Your task to perform on an android device: open wifi settings Image 0: 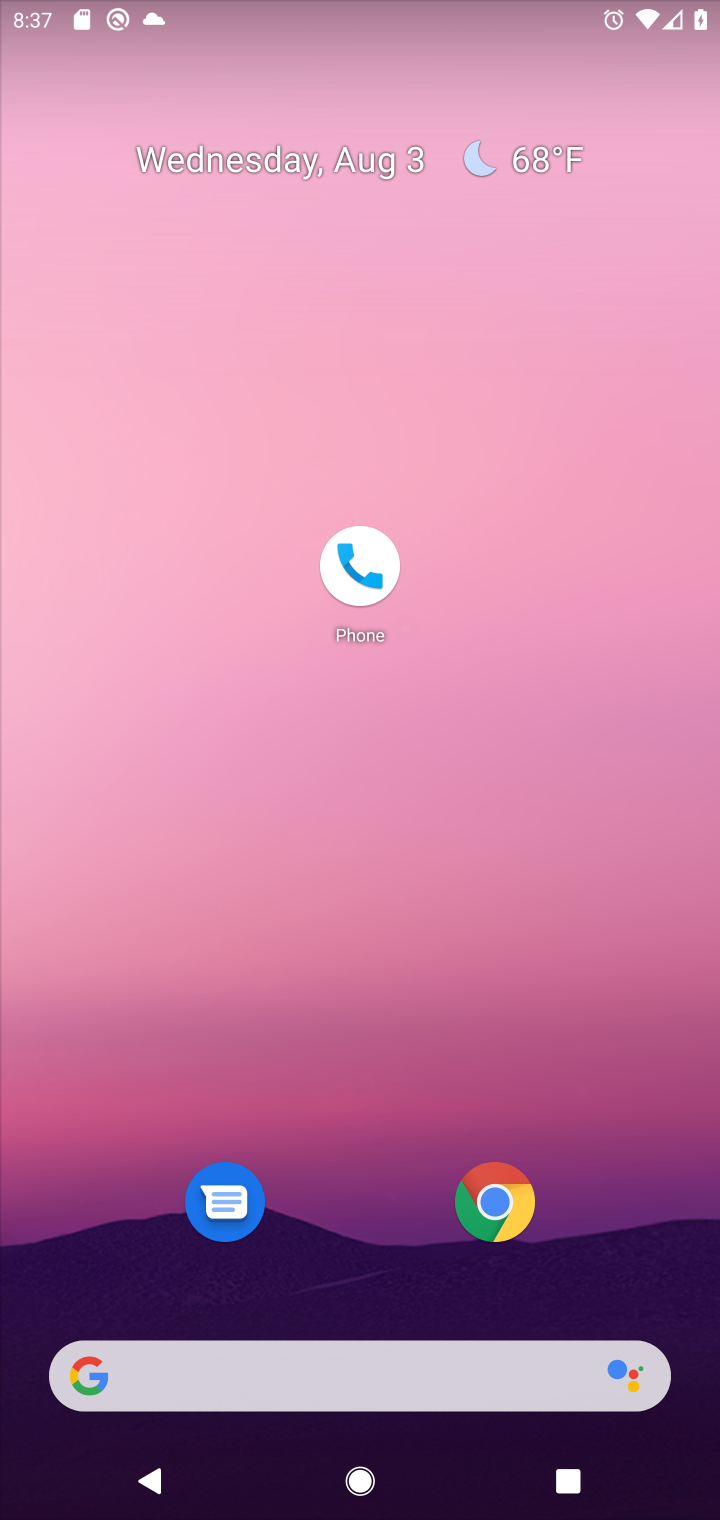
Step 0: drag from (300, 1380) to (714, 186)
Your task to perform on an android device: open wifi settings Image 1: 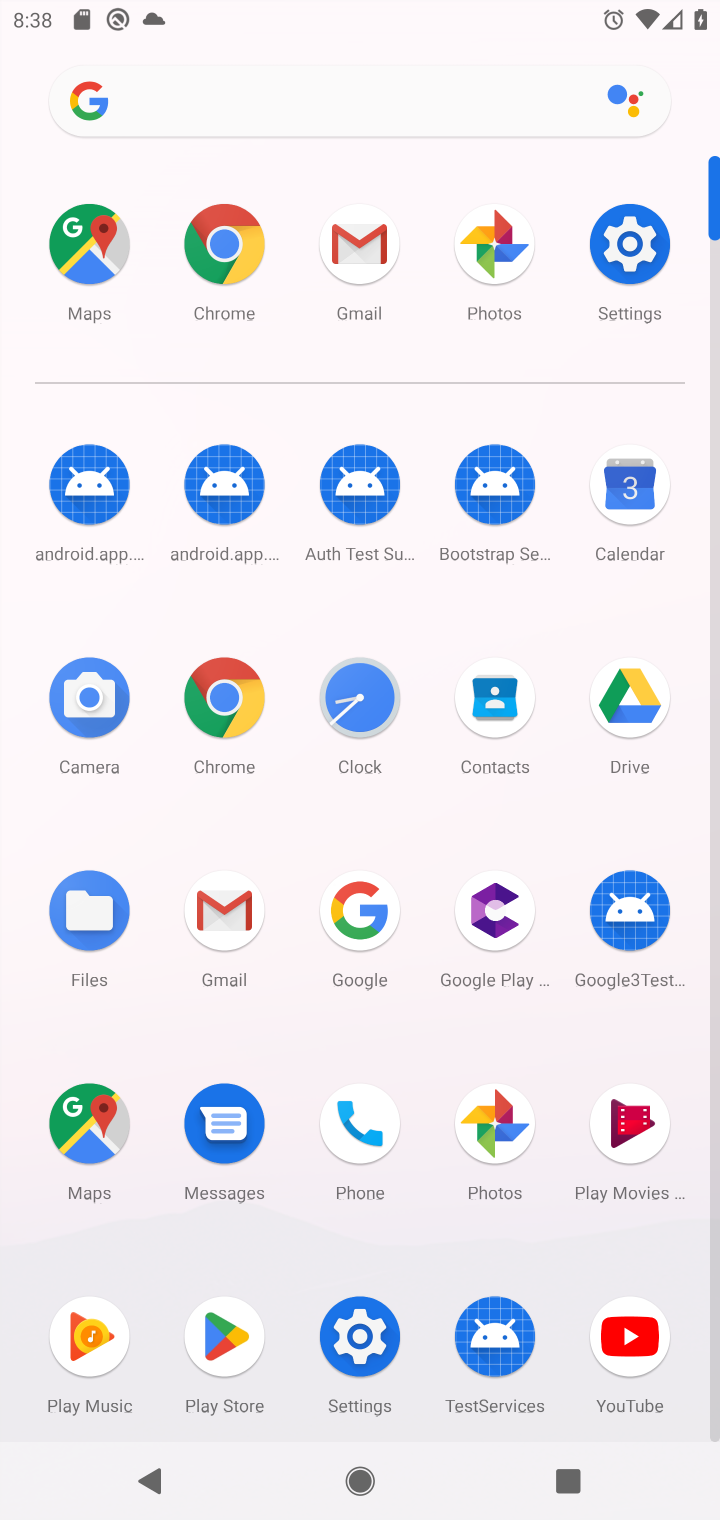
Step 1: click (630, 246)
Your task to perform on an android device: open wifi settings Image 2: 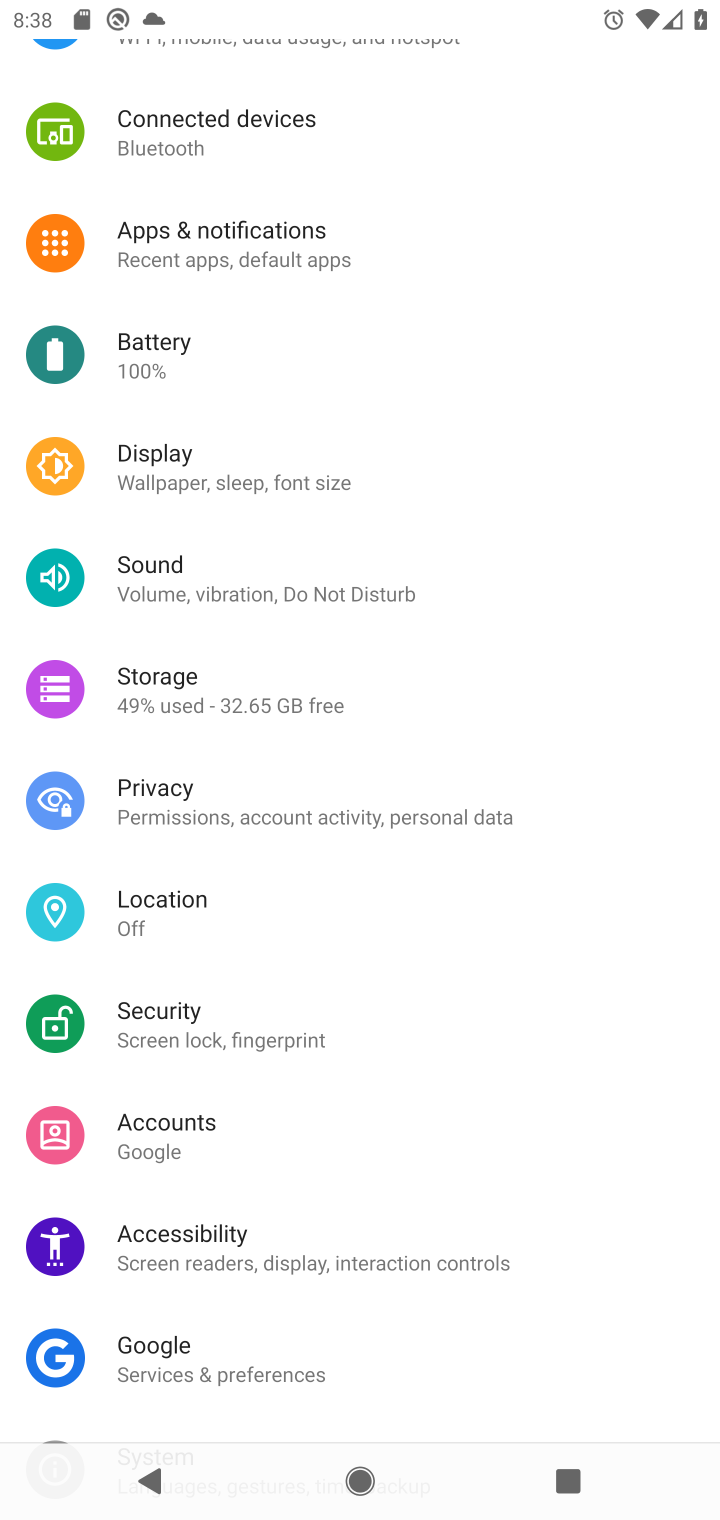
Step 2: drag from (365, 339) to (387, 1026)
Your task to perform on an android device: open wifi settings Image 3: 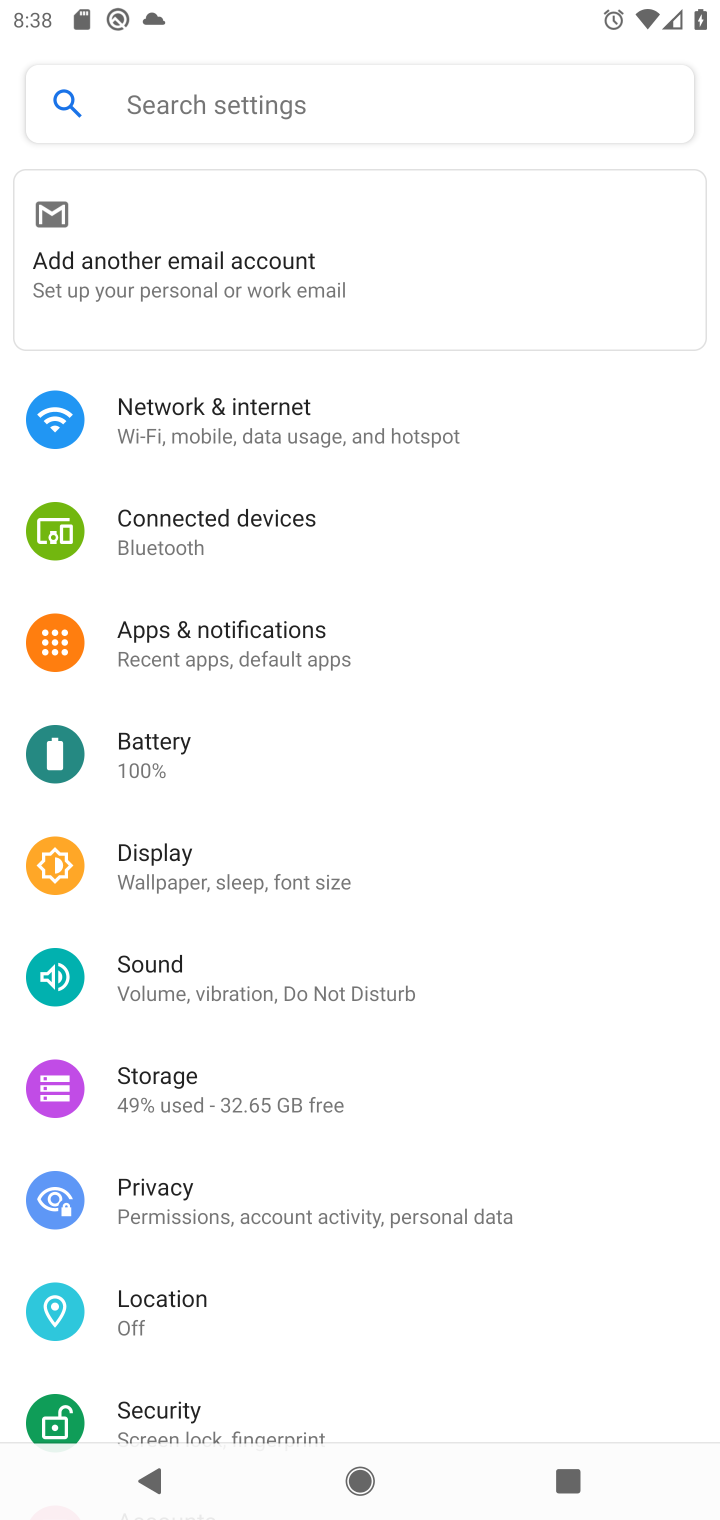
Step 3: click (246, 441)
Your task to perform on an android device: open wifi settings Image 4: 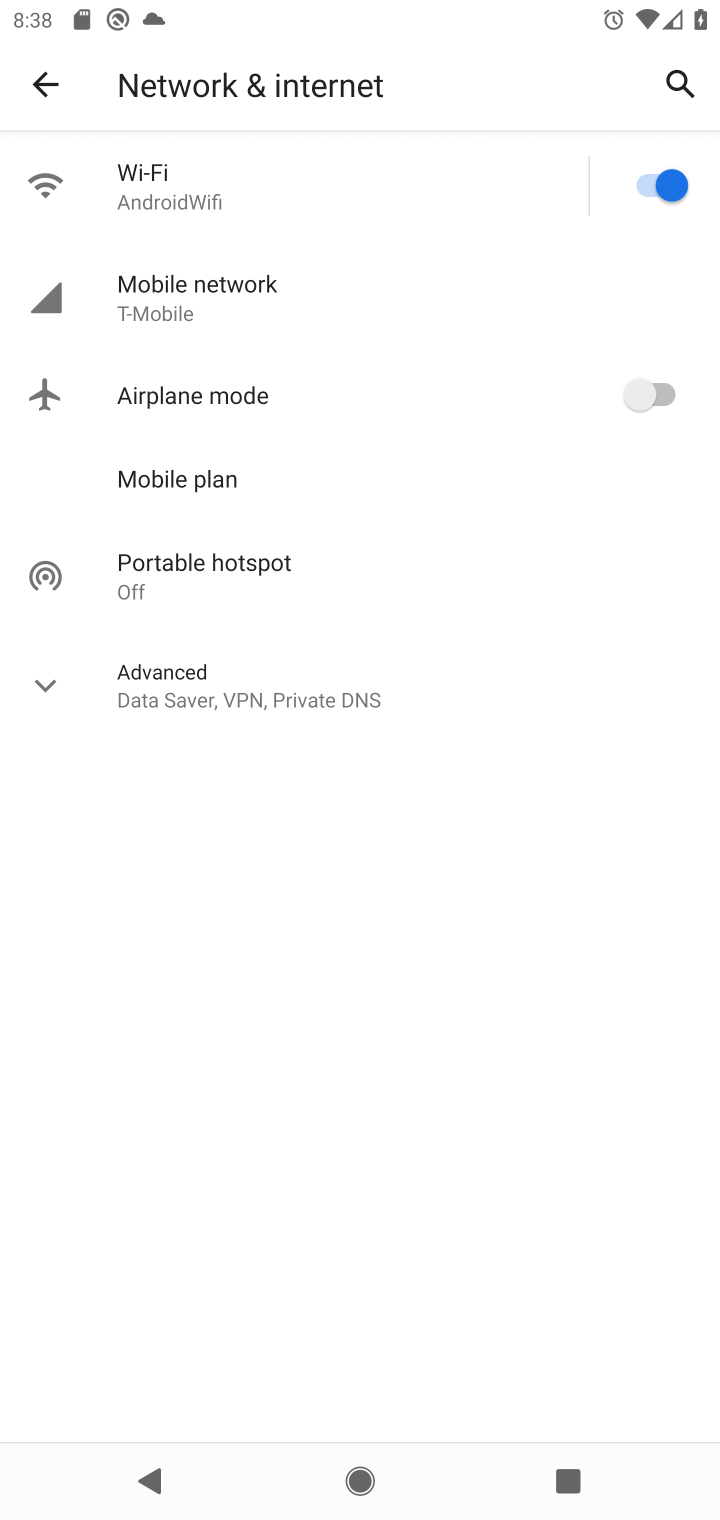
Step 4: click (147, 187)
Your task to perform on an android device: open wifi settings Image 5: 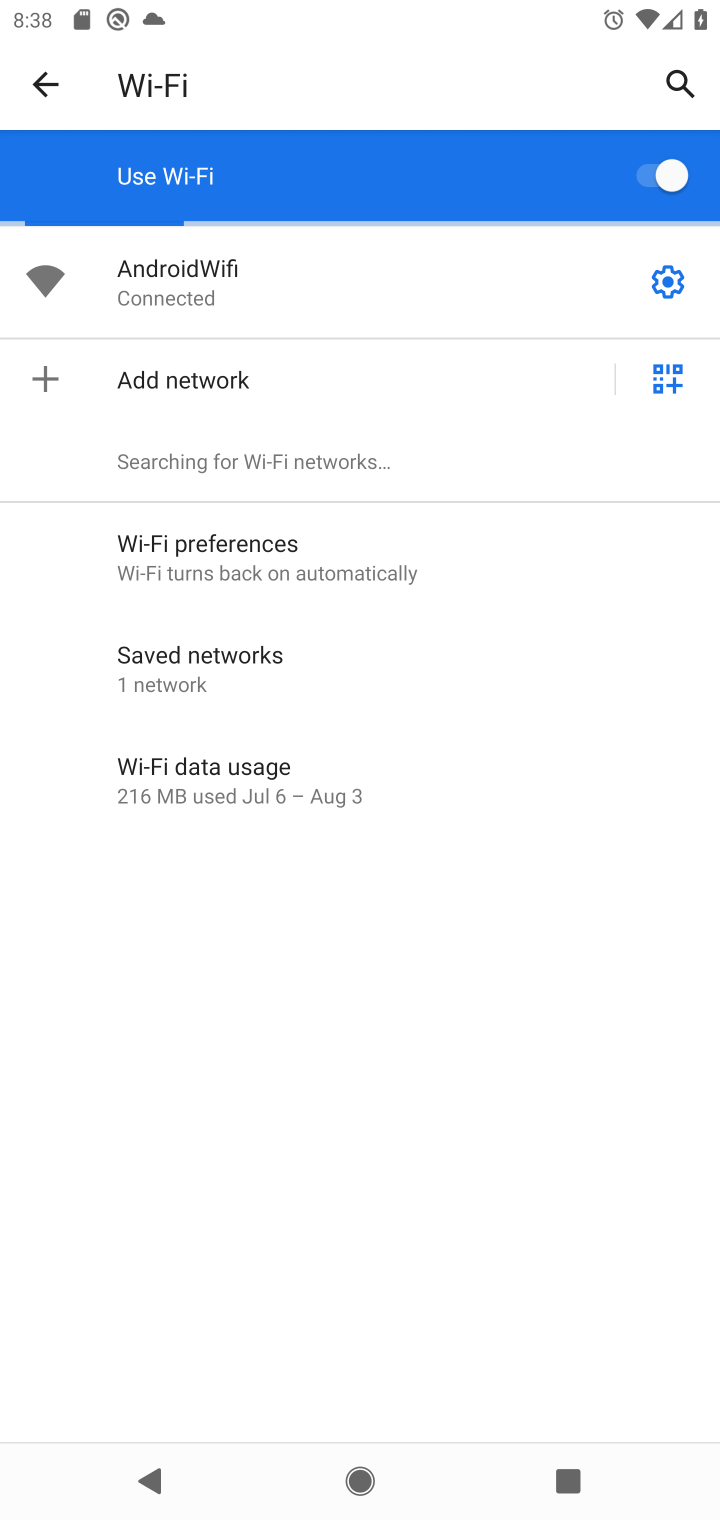
Step 5: click (662, 279)
Your task to perform on an android device: open wifi settings Image 6: 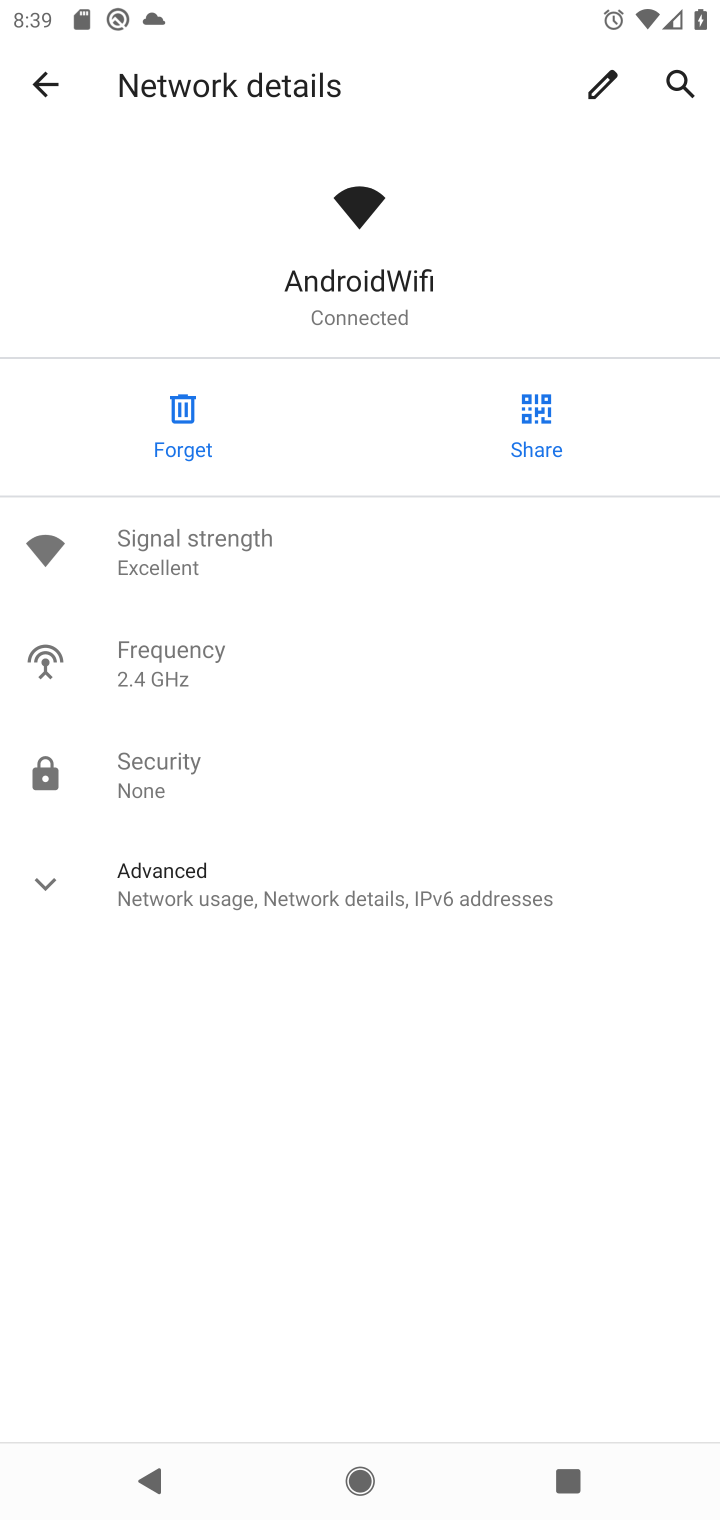
Step 6: task complete